Your task to perform on an android device: toggle sleep mode Image 0: 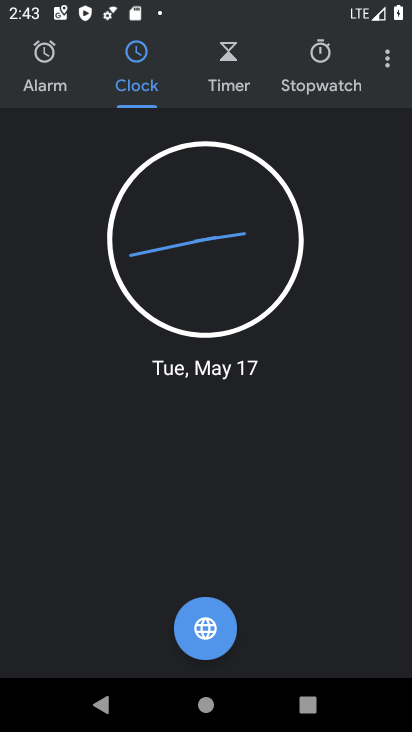
Step 0: press home button
Your task to perform on an android device: toggle sleep mode Image 1: 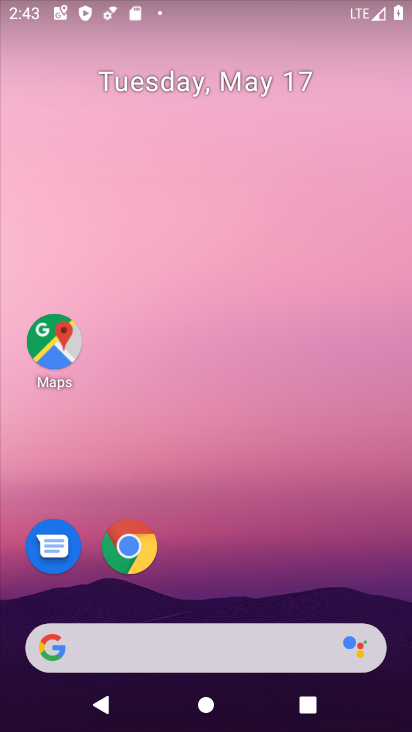
Step 1: drag from (237, 332) to (250, 54)
Your task to perform on an android device: toggle sleep mode Image 2: 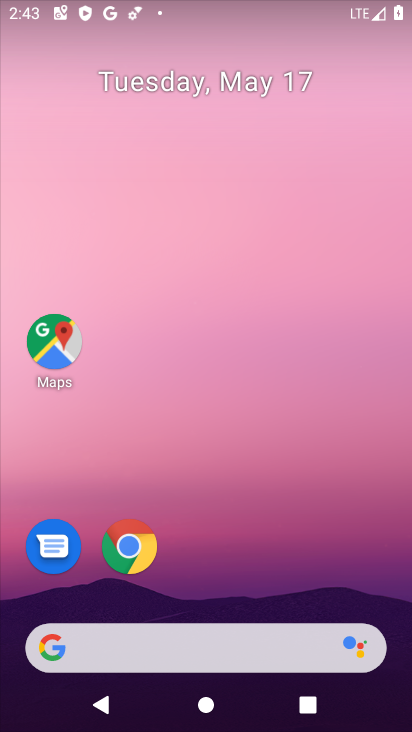
Step 2: drag from (301, 578) to (308, 30)
Your task to perform on an android device: toggle sleep mode Image 3: 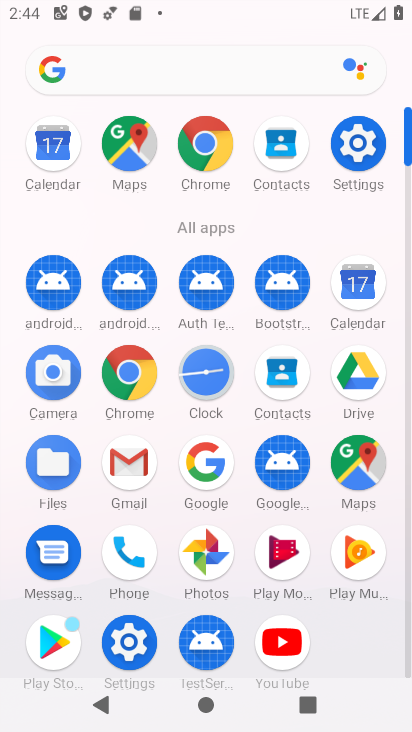
Step 3: click (367, 146)
Your task to perform on an android device: toggle sleep mode Image 4: 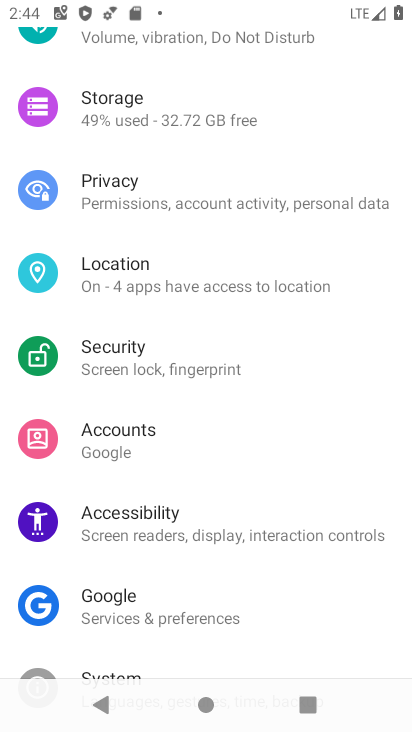
Step 4: drag from (224, 138) to (202, 584)
Your task to perform on an android device: toggle sleep mode Image 5: 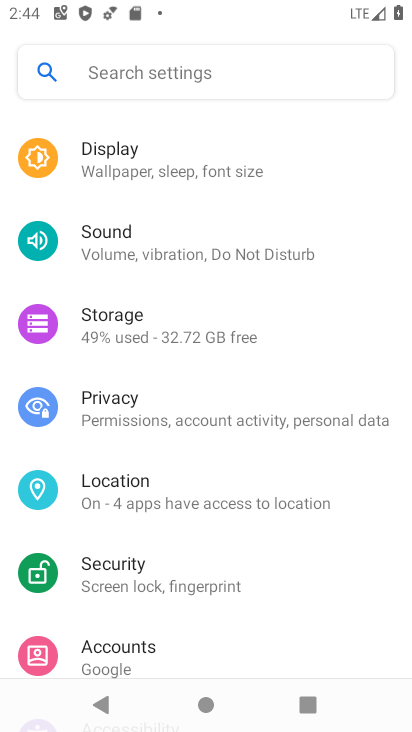
Step 5: drag from (202, 305) to (206, 601)
Your task to perform on an android device: toggle sleep mode Image 6: 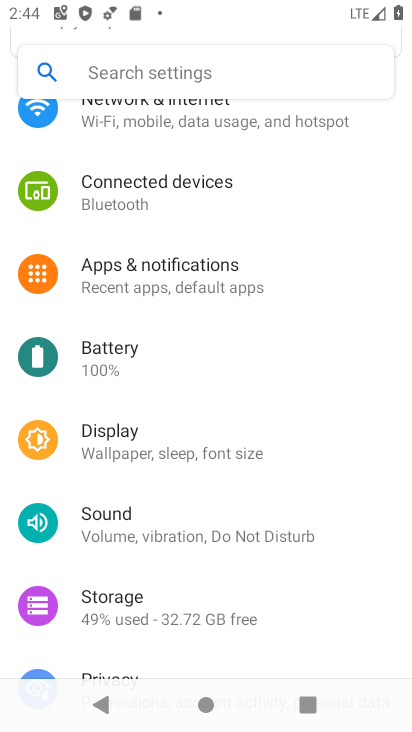
Step 6: click (157, 443)
Your task to perform on an android device: toggle sleep mode Image 7: 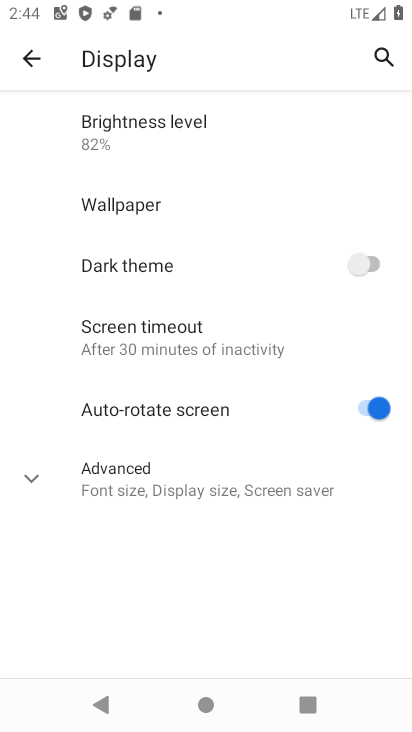
Step 7: click (174, 474)
Your task to perform on an android device: toggle sleep mode Image 8: 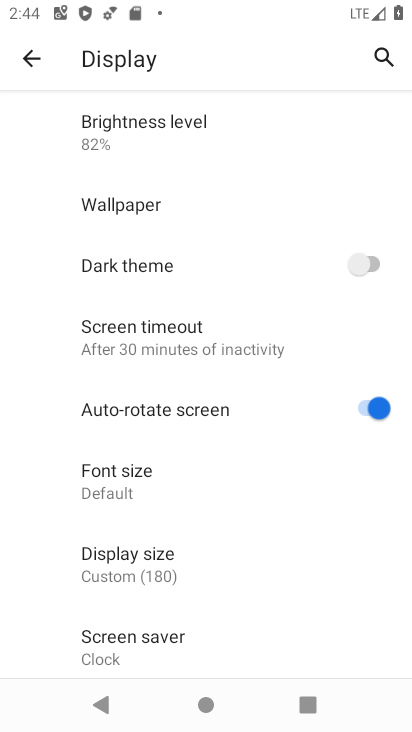
Step 8: task complete